Your task to perform on an android device: set the timer Image 0: 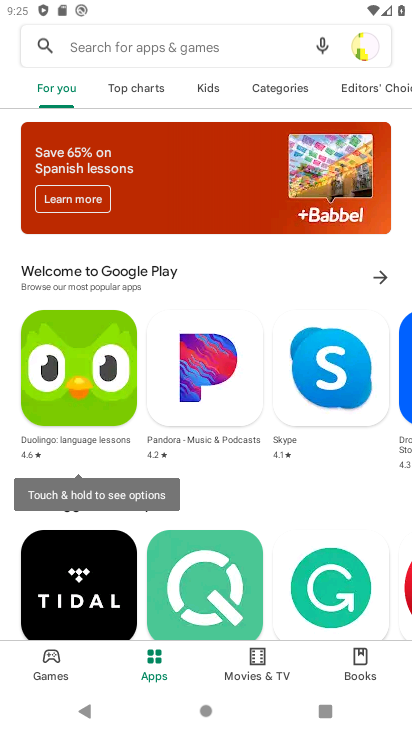
Step 0: press home button
Your task to perform on an android device: set the timer Image 1: 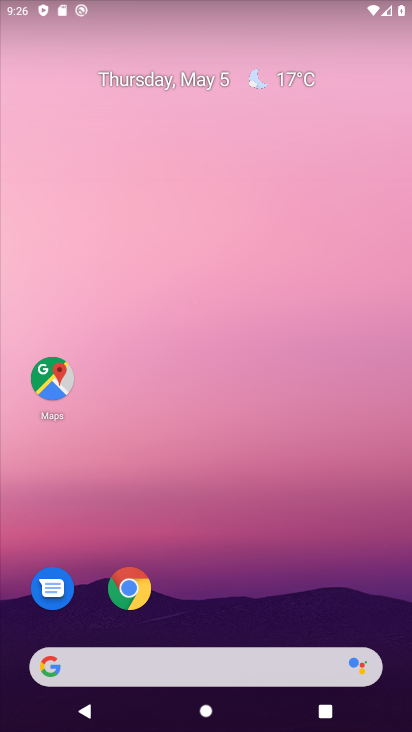
Step 1: drag from (226, 601) to (270, 104)
Your task to perform on an android device: set the timer Image 2: 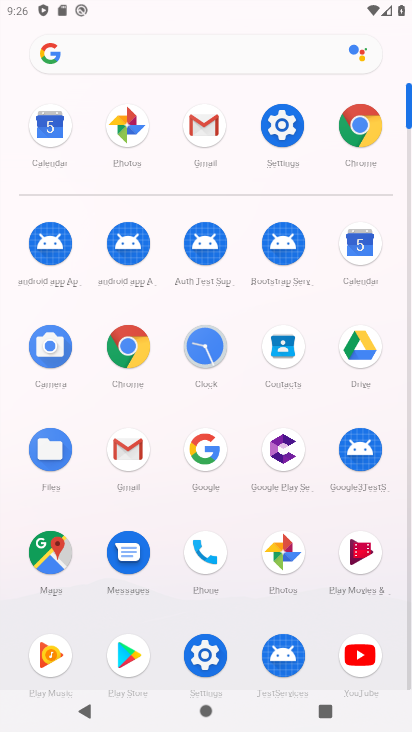
Step 2: click (203, 347)
Your task to perform on an android device: set the timer Image 3: 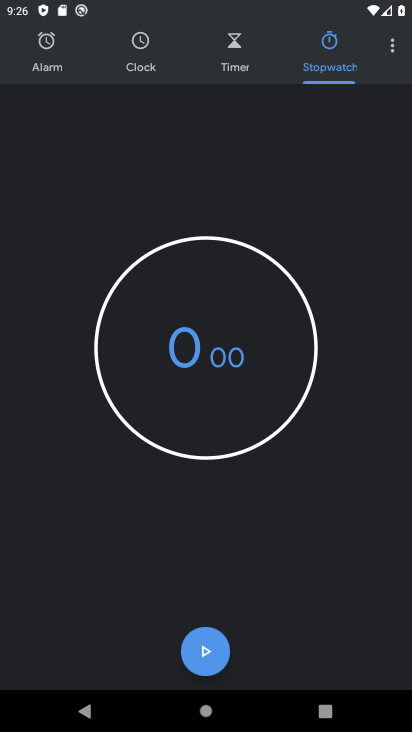
Step 3: click (219, 54)
Your task to perform on an android device: set the timer Image 4: 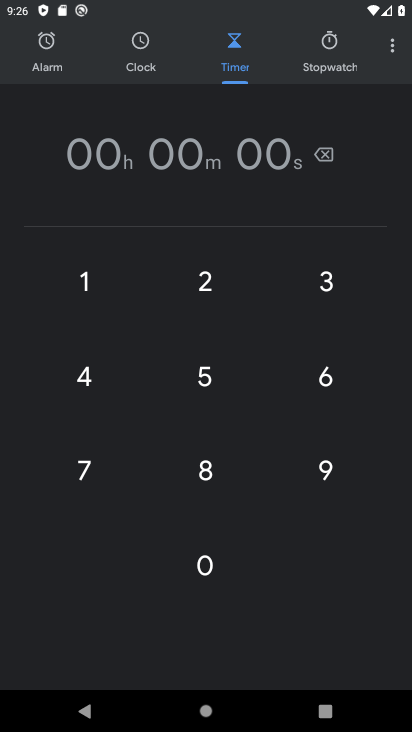
Step 4: click (89, 144)
Your task to perform on an android device: set the timer Image 5: 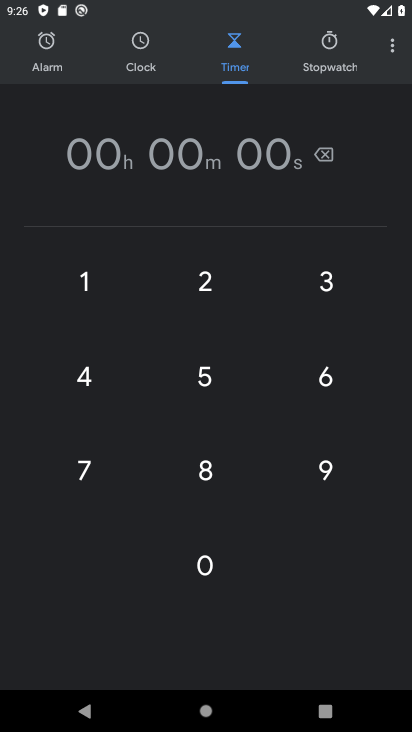
Step 5: type "09"
Your task to perform on an android device: set the timer Image 6: 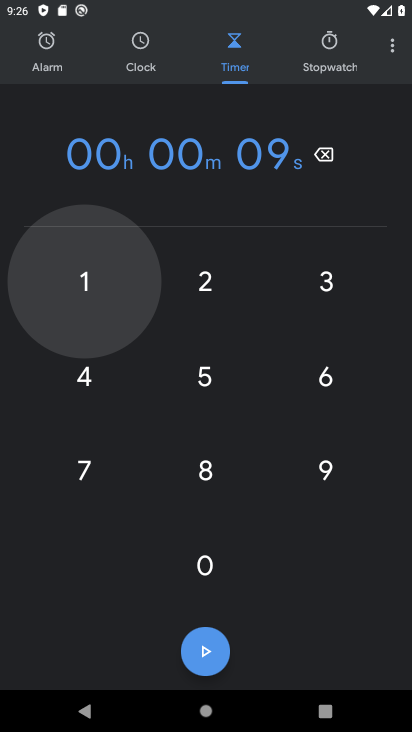
Step 6: type "09"
Your task to perform on an android device: set the timer Image 7: 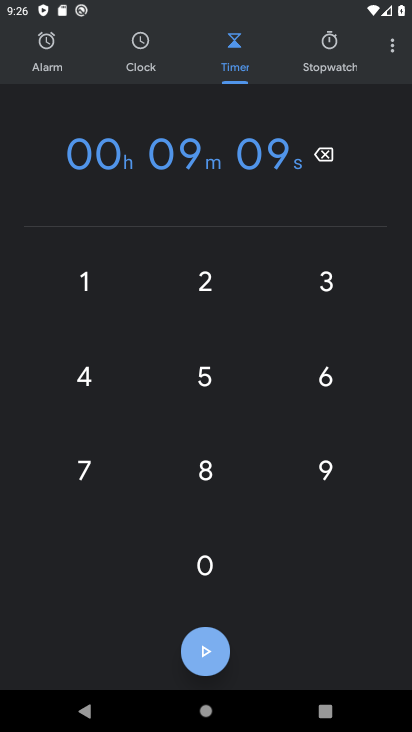
Step 7: type "88"
Your task to perform on an android device: set the timer Image 8: 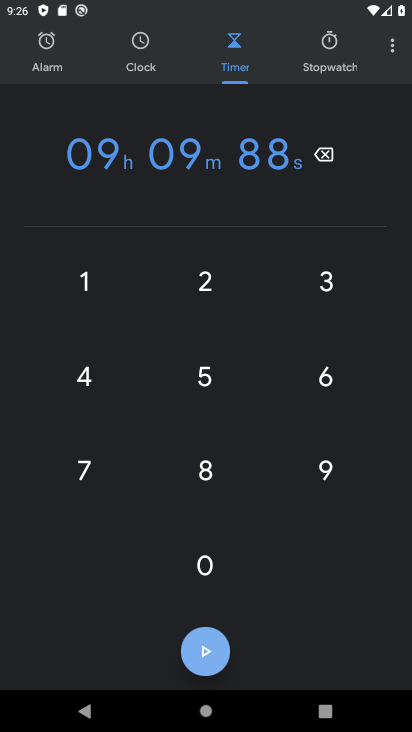
Step 8: click (224, 658)
Your task to perform on an android device: set the timer Image 9: 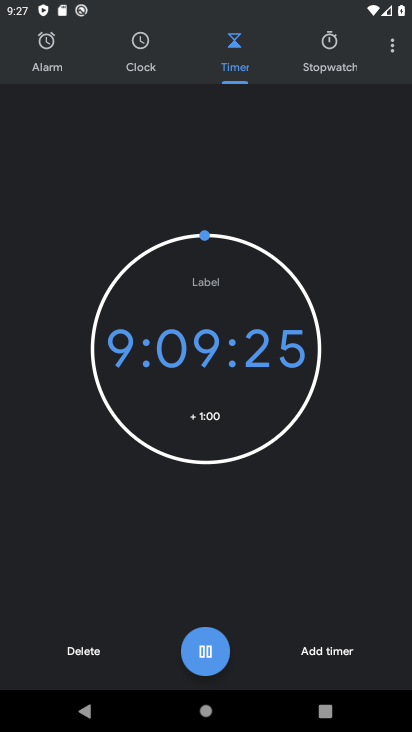
Step 9: task complete